Your task to perform on an android device: show emergency info Image 0: 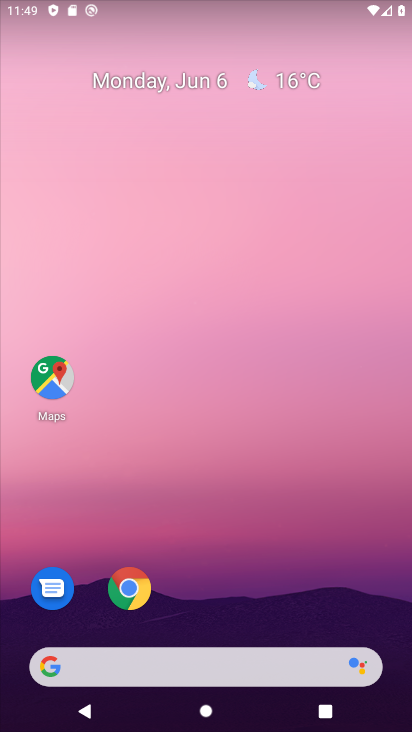
Step 0: task complete